Your task to perform on an android device: turn off notifications in google photos Image 0: 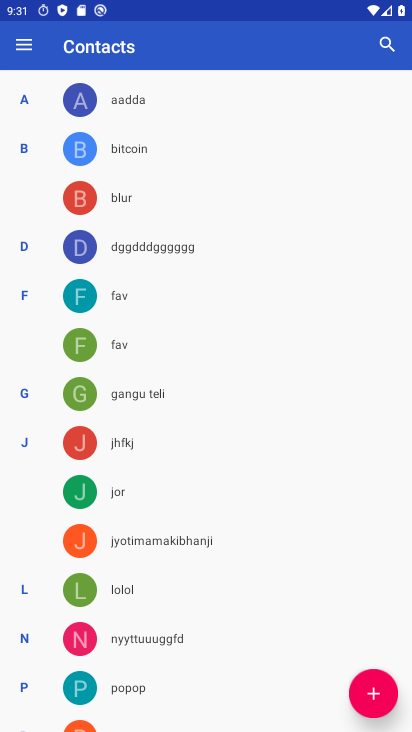
Step 0: press home button
Your task to perform on an android device: turn off notifications in google photos Image 1: 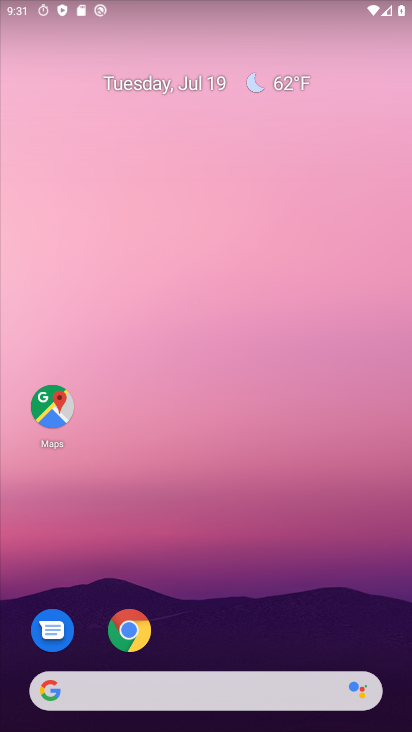
Step 1: drag from (161, 620) to (235, 182)
Your task to perform on an android device: turn off notifications in google photos Image 2: 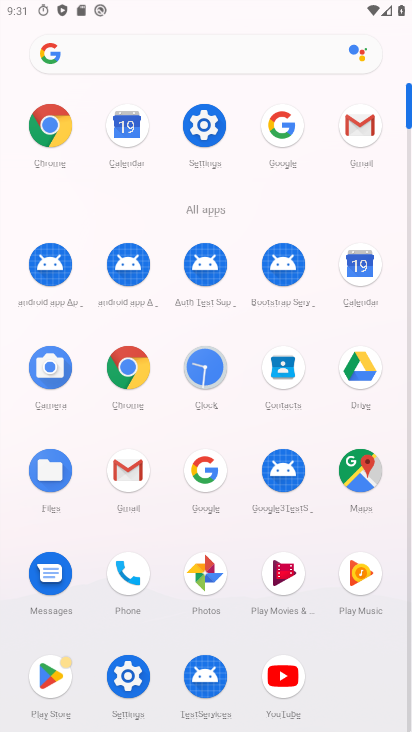
Step 2: click (206, 575)
Your task to perform on an android device: turn off notifications in google photos Image 3: 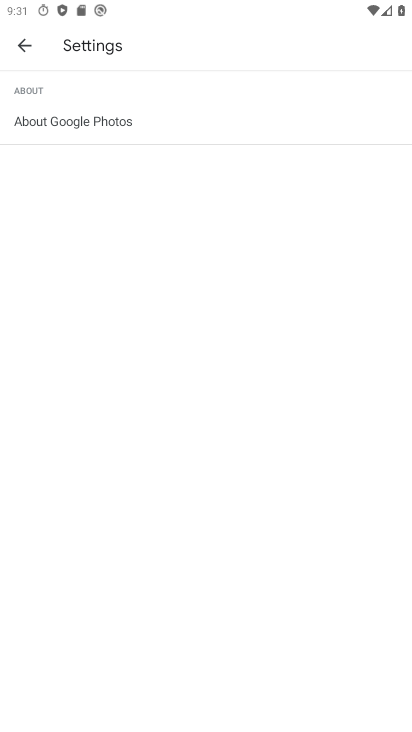
Step 3: click (26, 43)
Your task to perform on an android device: turn off notifications in google photos Image 4: 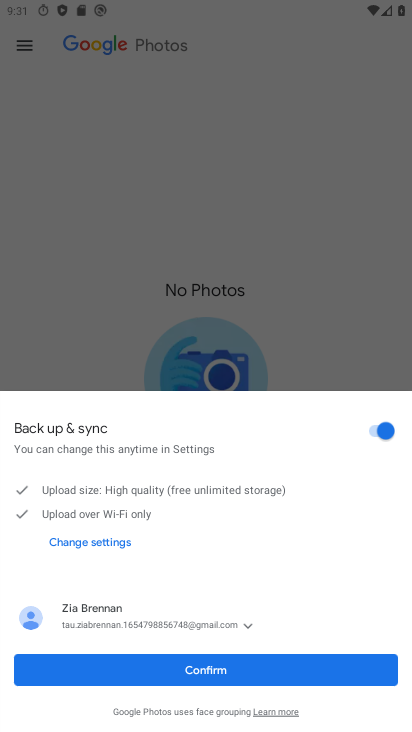
Step 4: click (175, 671)
Your task to perform on an android device: turn off notifications in google photos Image 5: 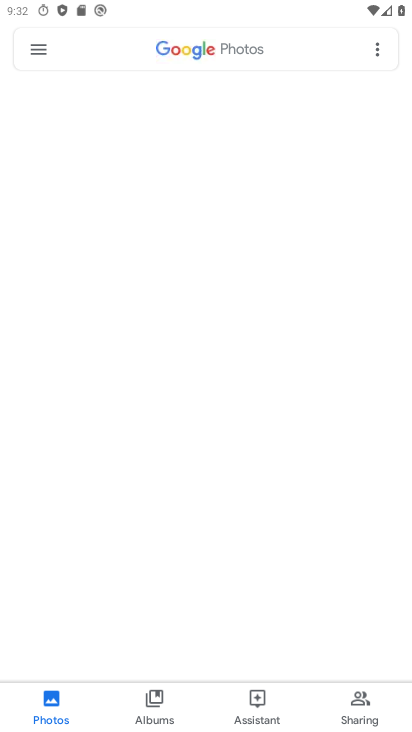
Step 5: click (29, 38)
Your task to perform on an android device: turn off notifications in google photos Image 6: 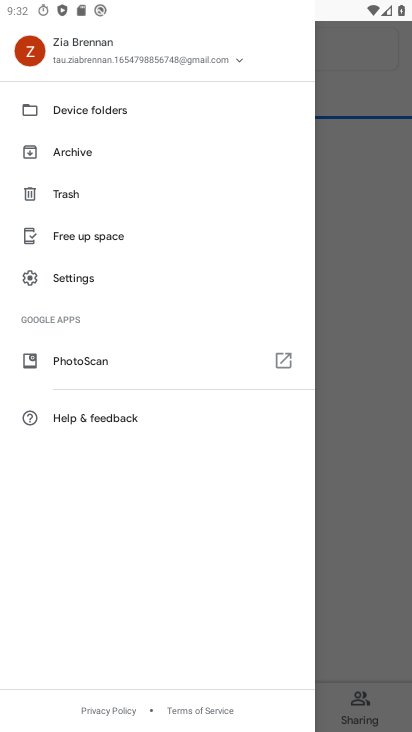
Step 6: click (65, 276)
Your task to perform on an android device: turn off notifications in google photos Image 7: 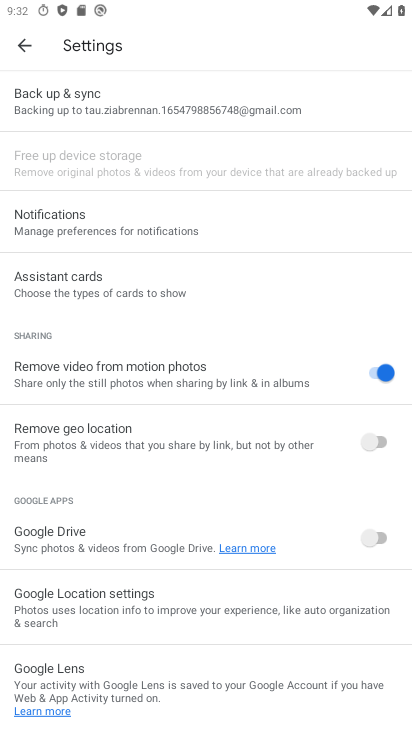
Step 7: click (75, 220)
Your task to perform on an android device: turn off notifications in google photos Image 8: 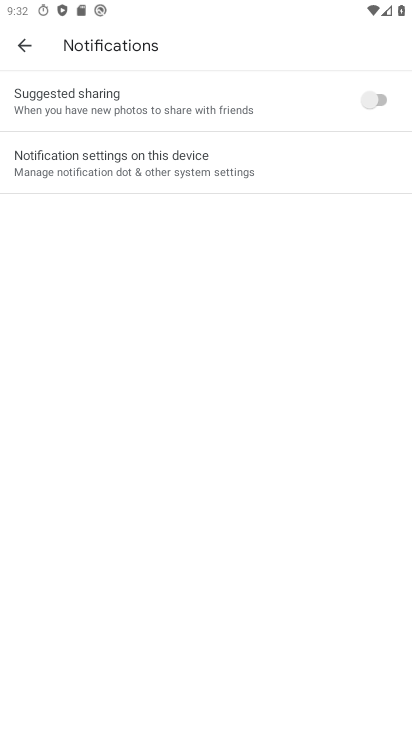
Step 8: click (72, 161)
Your task to perform on an android device: turn off notifications in google photos Image 9: 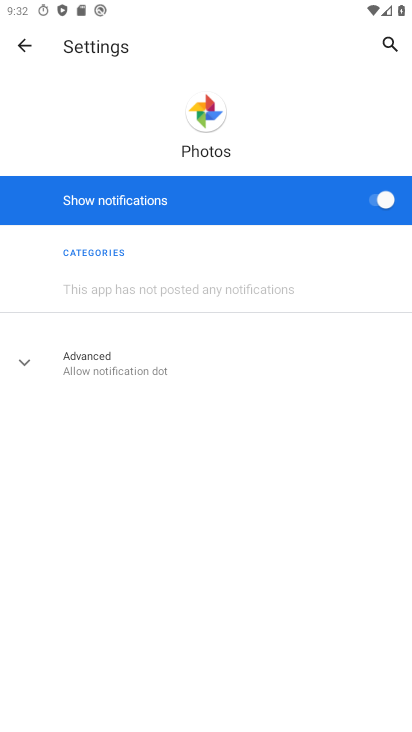
Step 9: click (366, 201)
Your task to perform on an android device: turn off notifications in google photos Image 10: 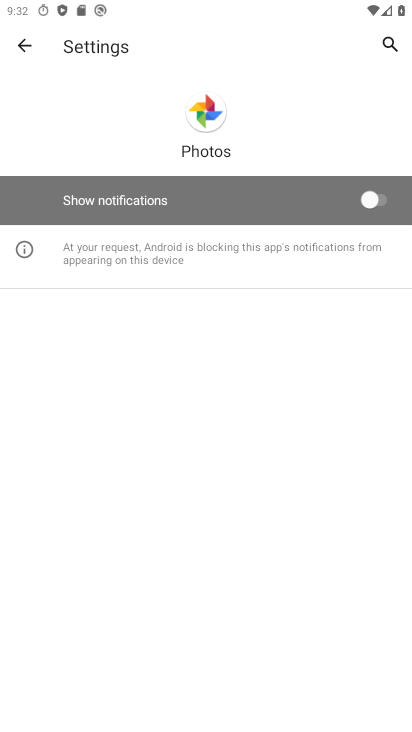
Step 10: task complete